Your task to perform on an android device: Go to notification settings Image 0: 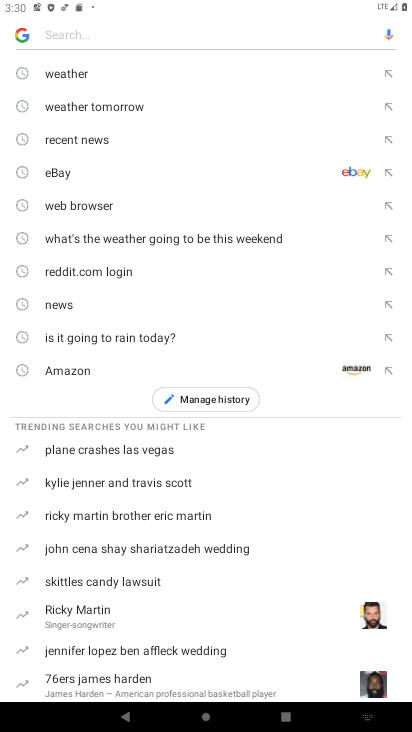
Step 0: press home button
Your task to perform on an android device: Go to notification settings Image 1: 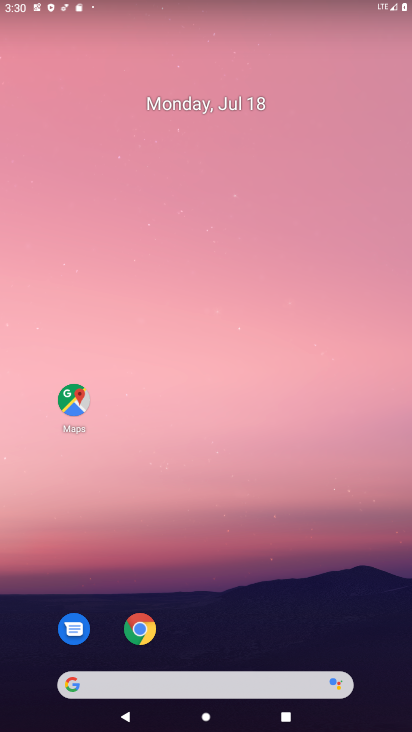
Step 1: drag from (215, 501) to (332, 4)
Your task to perform on an android device: Go to notification settings Image 2: 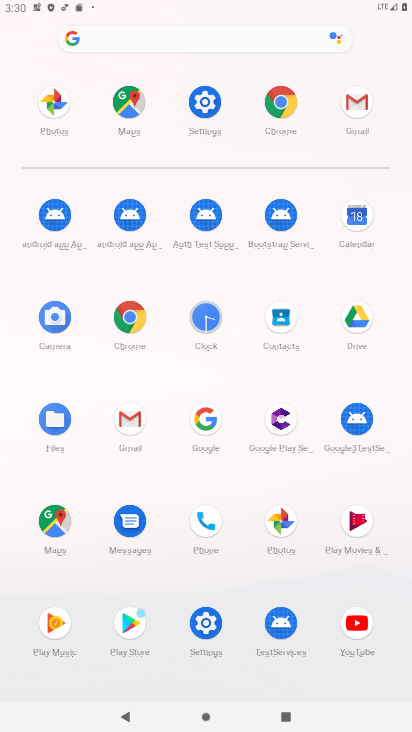
Step 2: click (200, 625)
Your task to perform on an android device: Go to notification settings Image 3: 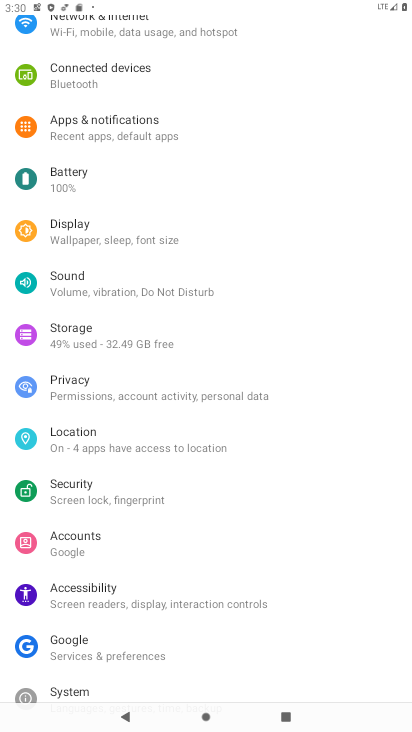
Step 3: click (101, 131)
Your task to perform on an android device: Go to notification settings Image 4: 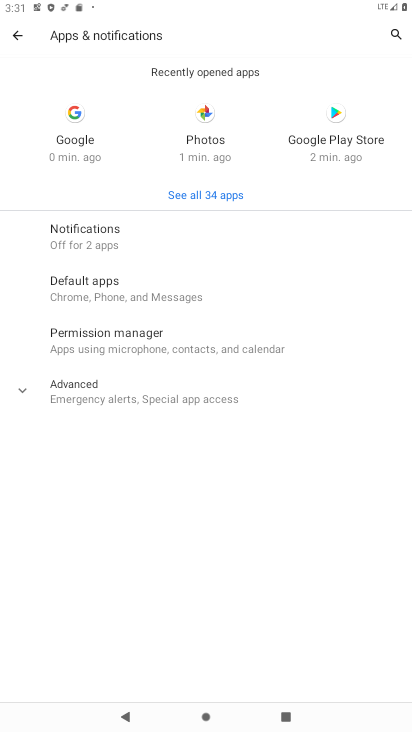
Step 4: click (137, 230)
Your task to perform on an android device: Go to notification settings Image 5: 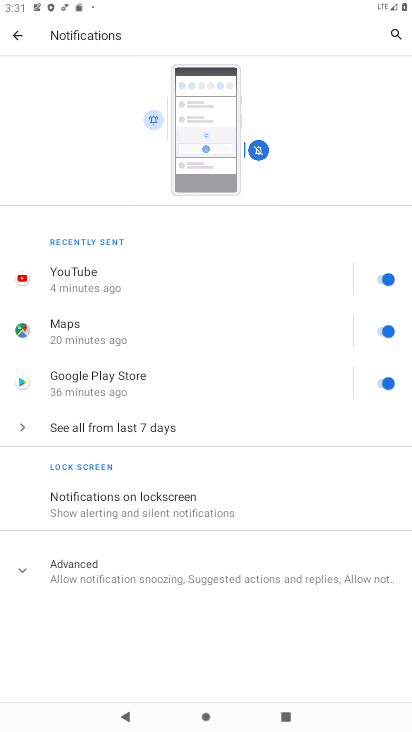
Step 5: task complete